Your task to perform on an android device: turn on improve location accuracy Image 0: 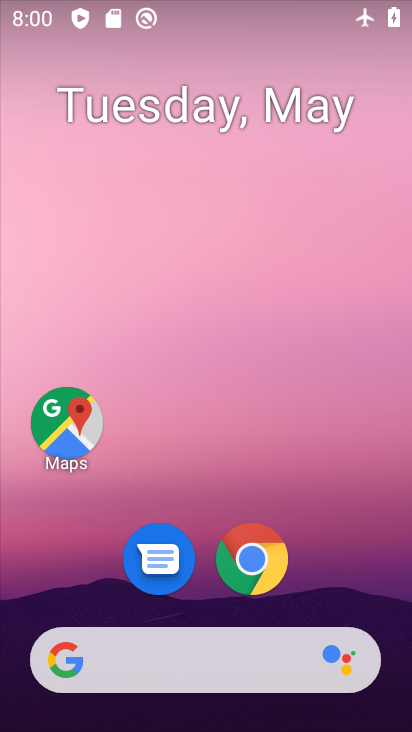
Step 0: drag from (197, 594) to (206, 196)
Your task to perform on an android device: turn on improve location accuracy Image 1: 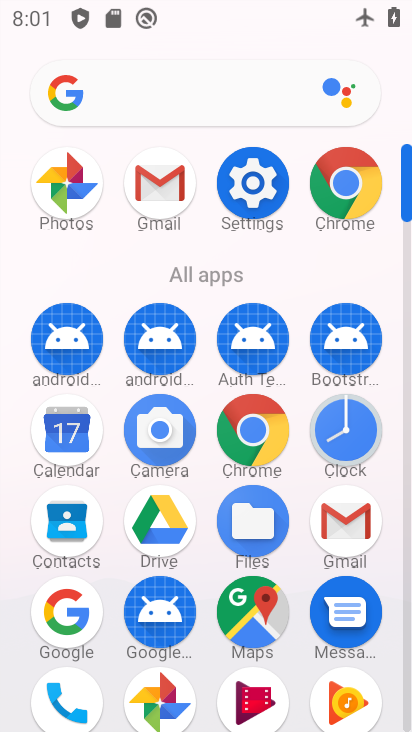
Step 1: click (236, 201)
Your task to perform on an android device: turn on improve location accuracy Image 2: 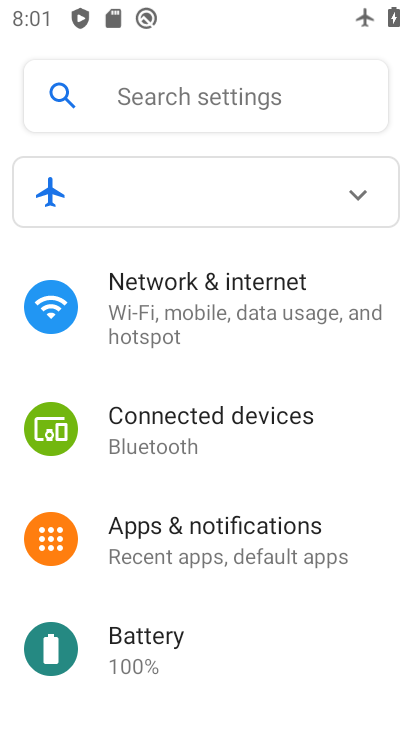
Step 2: drag from (217, 560) to (210, 238)
Your task to perform on an android device: turn on improve location accuracy Image 3: 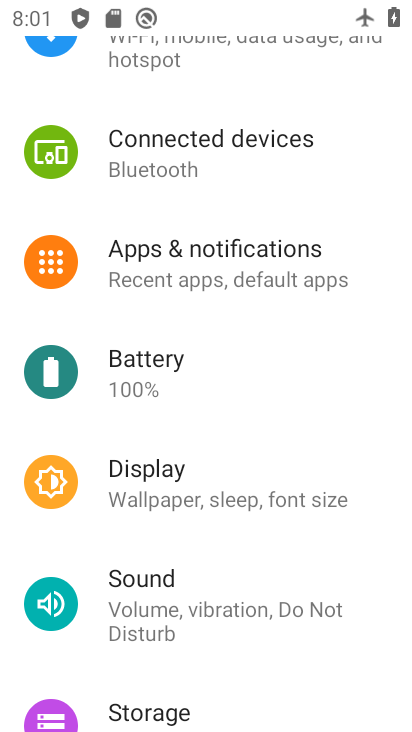
Step 3: drag from (221, 465) to (213, 217)
Your task to perform on an android device: turn on improve location accuracy Image 4: 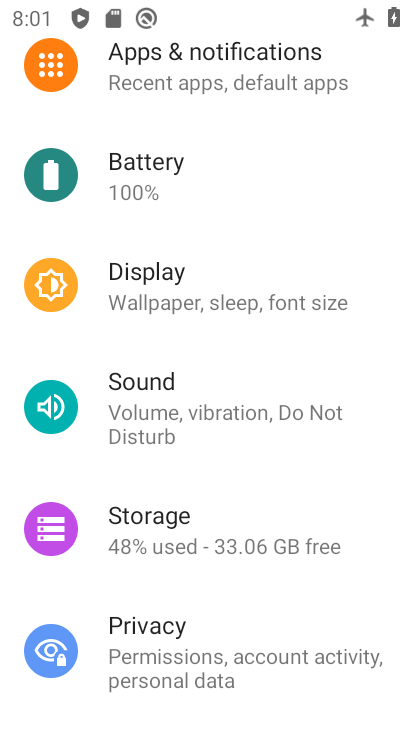
Step 4: drag from (221, 598) to (180, 346)
Your task to perform on an android device: turn on improve location accuracy Image 5: 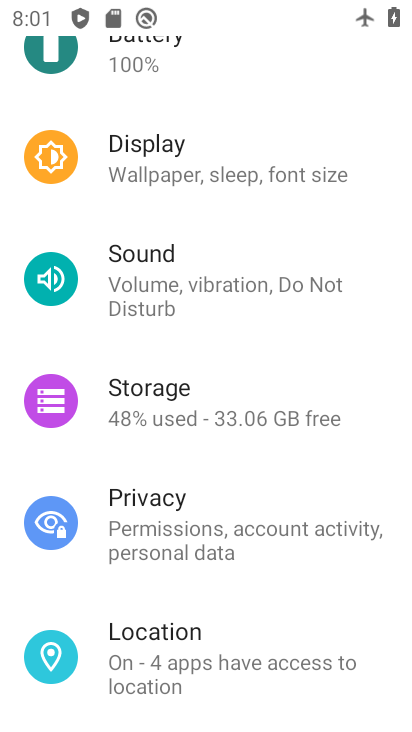
Step 5: click (191, 641)
Your task to perform on an android device: turn on improve location accuracy Image 6: 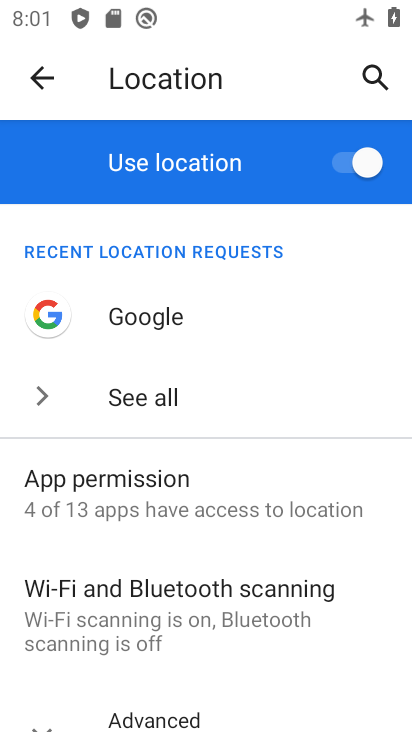
Step 6: drag from (178, 696) to (217, 454)
Your task to perform on an android device: turn on improve location accuracy Image 7: 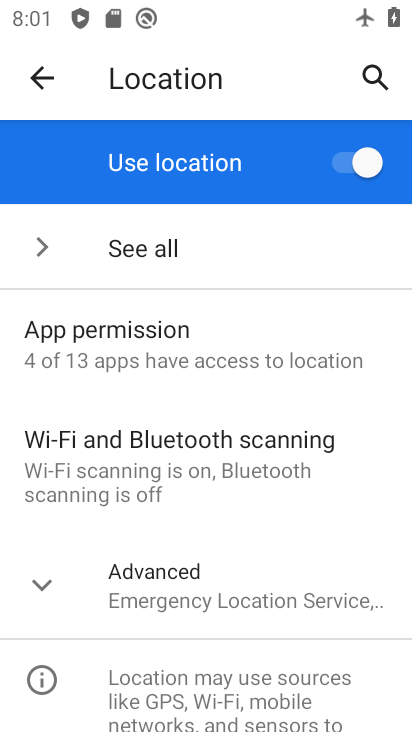
Step 7: drag from (258, 574) to (288, 324)
Your task to perform on an android device: turn on improve location accuracy Image 8: 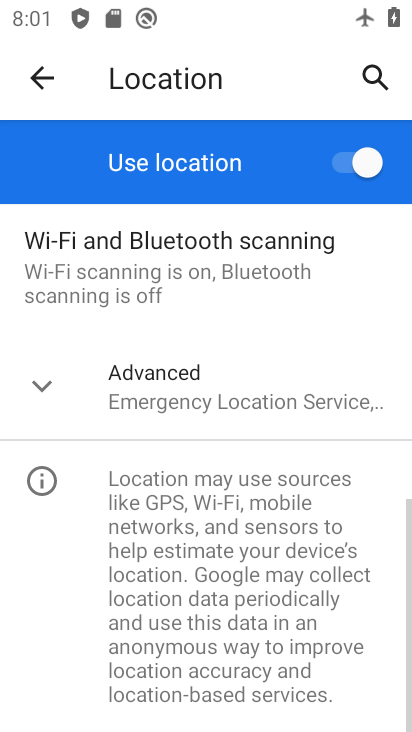
Step 8: click (137, 370)
Your task to perform on an android device: turn on improve location accuracy Image 9: 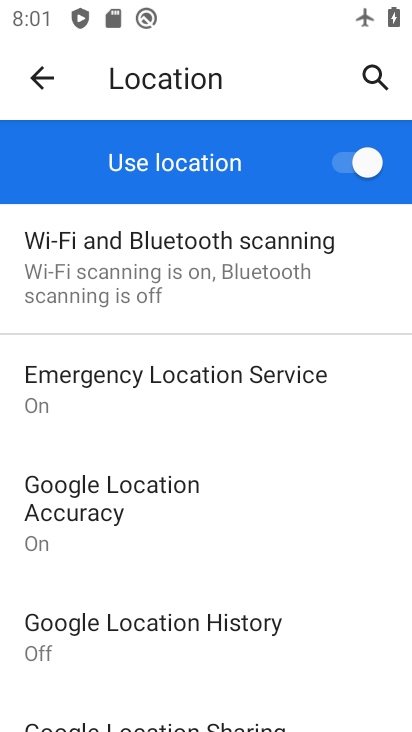
Step 9: drag from (229, 597) to (260, 465)
Your task to perform on an android device: turn on improve location accuracy Image 10: 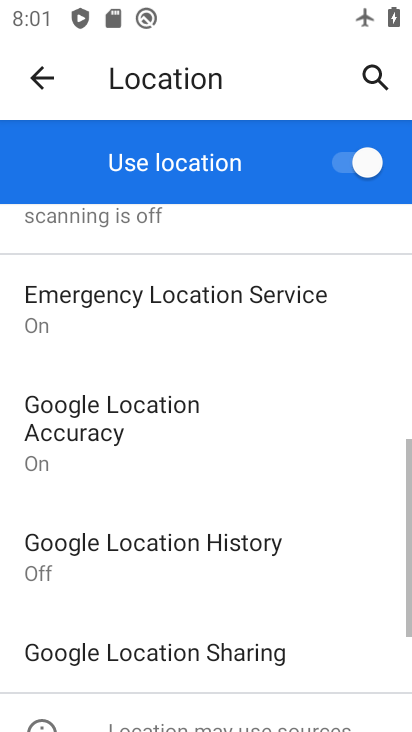
Step 10: click (126, 425)
Your task to perform on an android device: turn on improve location accuracy Image 11: 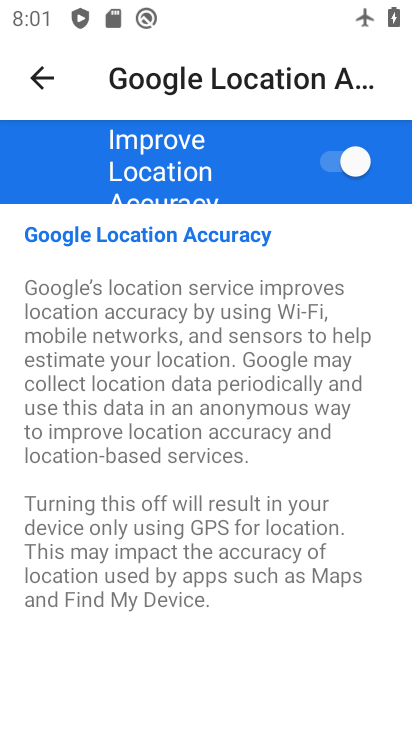
Step 11: task complete